Your task to perform on an android device: see creations saved in the google photos Image 0: 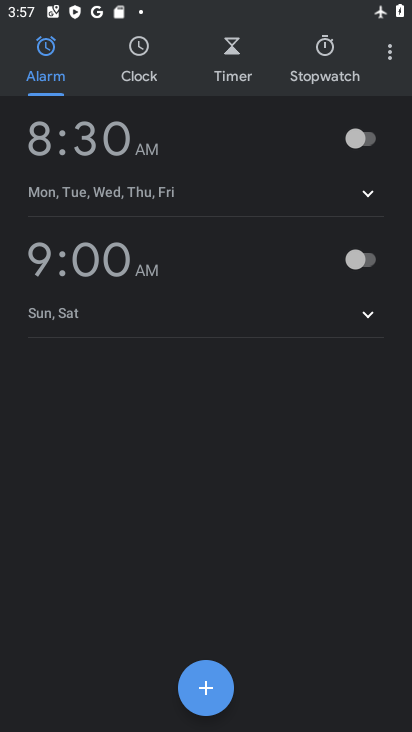
Step 0: press home button
Your task to perform on an android device: see creations saved in the google photos Image 1: 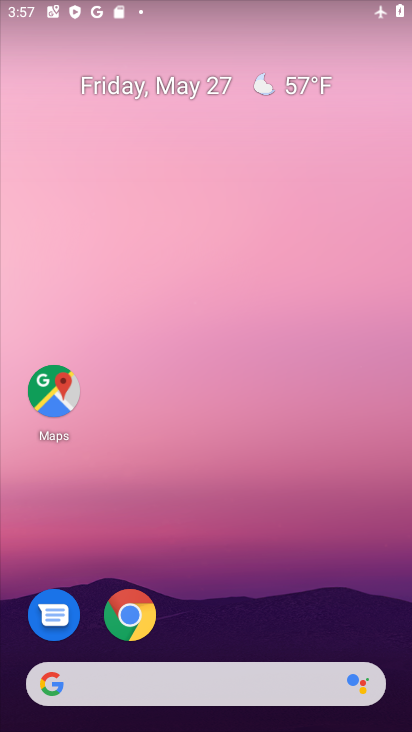
Step 1: drag from (205, 623) to (267, 54)
Your task to perform on an android device: see creations saved in the google photos Image 2: 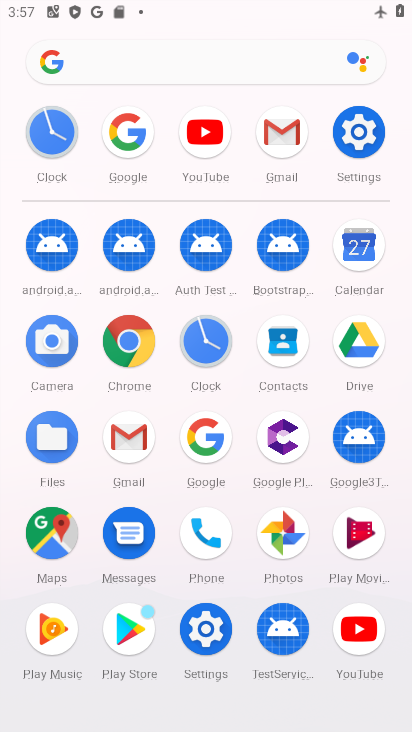
Step 2: click (273, 555)
Your task to perform on an android device: see creations saved in the google photos Image 3: 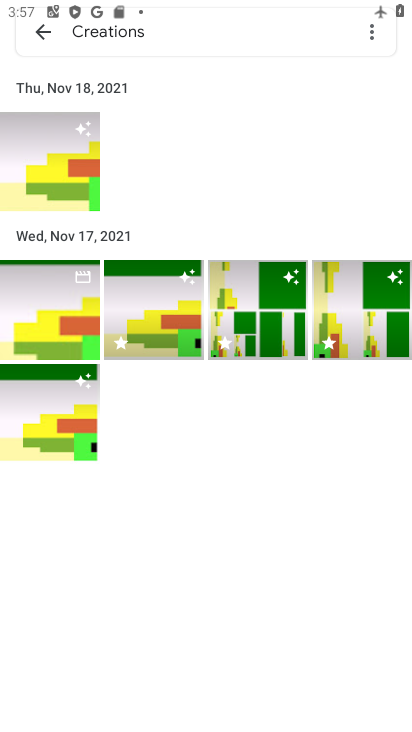
Step 3: task complete